Your task to perform on an android device: turn smart compose on in the gmail app Image 0: 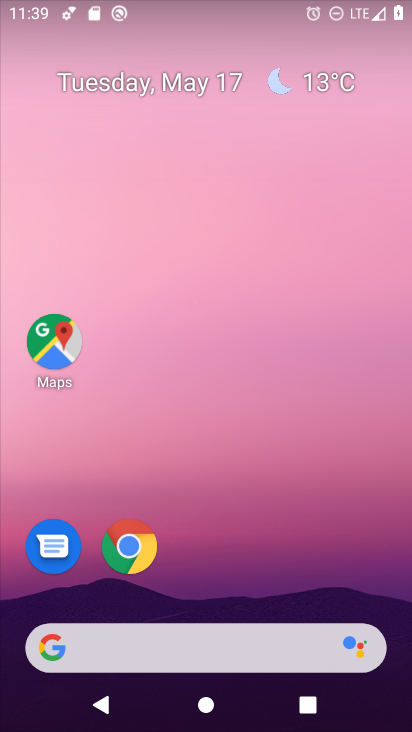
Step 0: drag from (298, 585) to (360, 0)
Your task to perform on an android device: turn smart compose on in the gmail app Image 1: 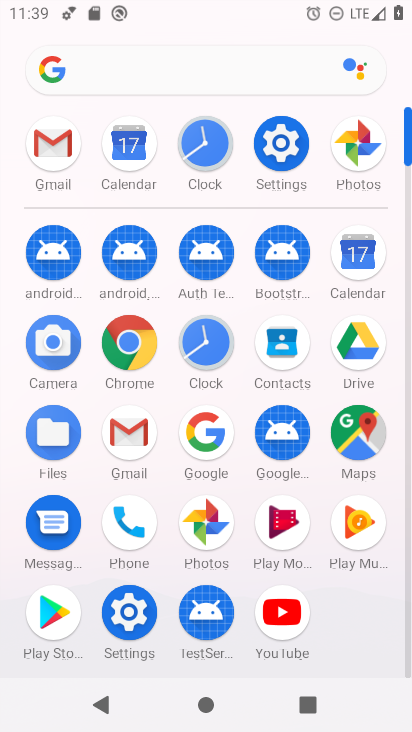
Step 1: click (41, 154)
Your task to perform on an android device: turn smart compose on in the gmail app Image 2: 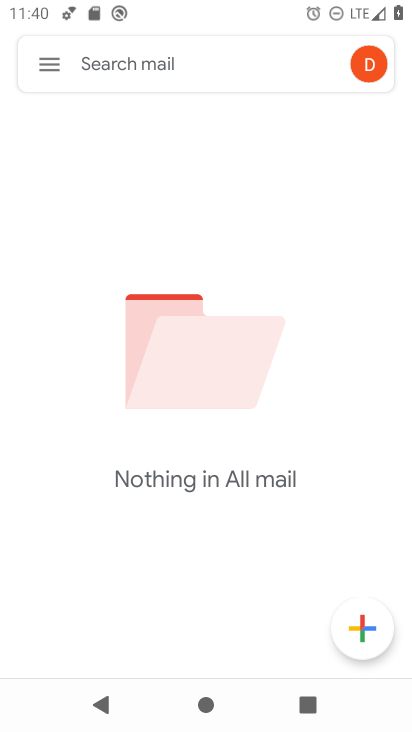
Step 2: click (45, 65)
Your task to perform on an android device: turn smart compose on in the gmail app Image 3: 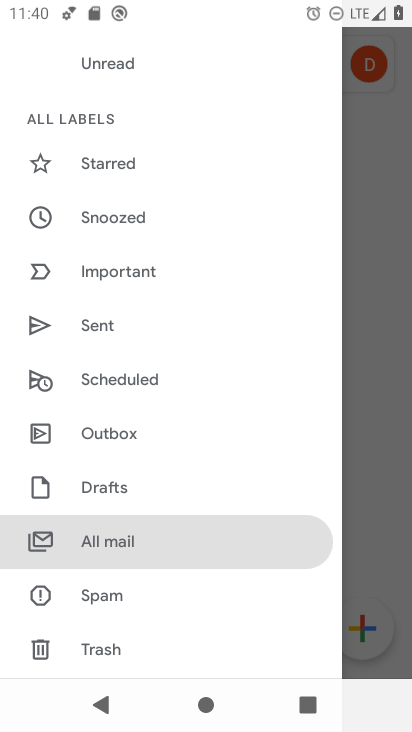
Step 3: drag from (162, 563) to (166, 137)
Your task to perform on an android device: turn smart compose on in the gmail app Image 4: 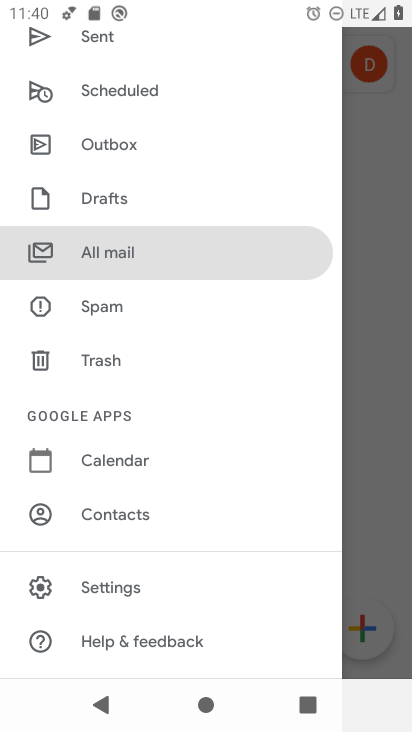
Step 4: click (127, 585)
Your task to perform on an android device: turn smart compose on in the gmail app Image 5: 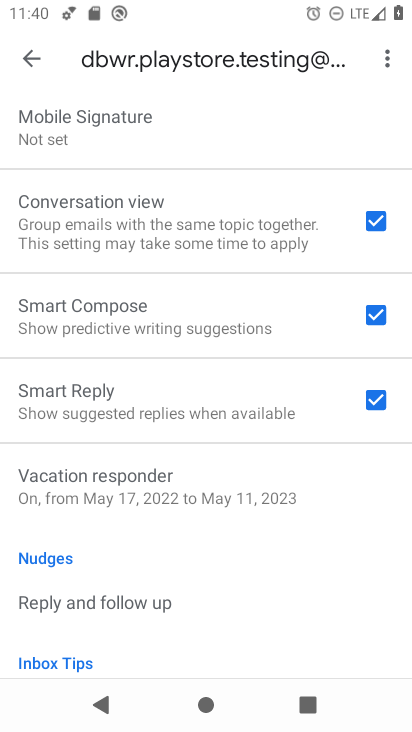
Step 5: task complete